Your task to perform on an android device: Search for Mexican restaurants on Maps Image 0: 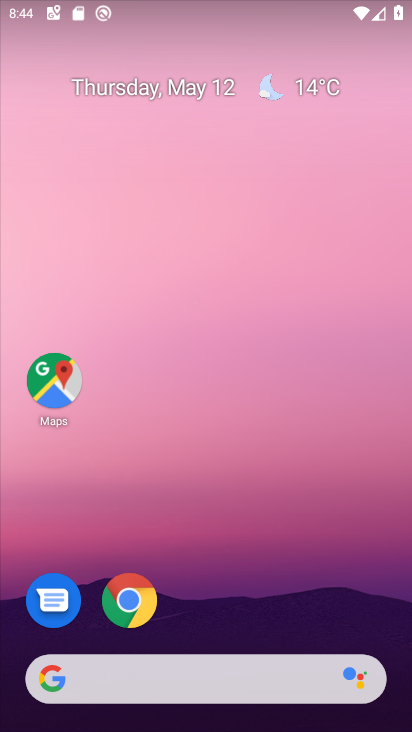
Step 0: drag from (341, 561) to (190, 171)
Your task to perform on an android device: Search for Mexican restaurants on Maps Image 1: 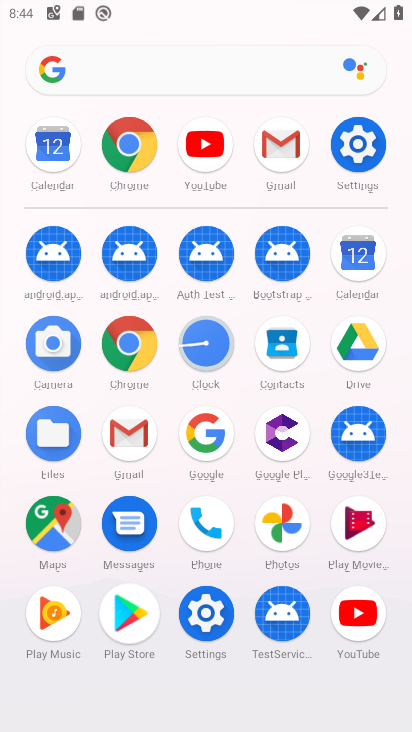
Step 1: click (48, 519)
Your task to perform on an android device: Search for Mexican restaurants on Maps Image 2: 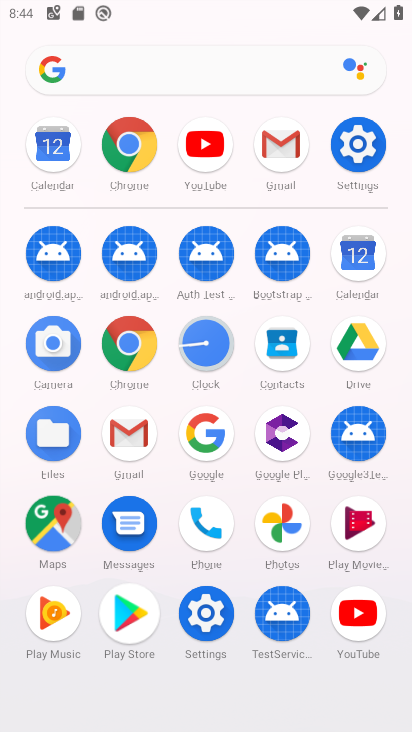
Step 2: click (51, 547)
Your task to perform on an android device: Search for Mexican restaurants on Maps Image 3: 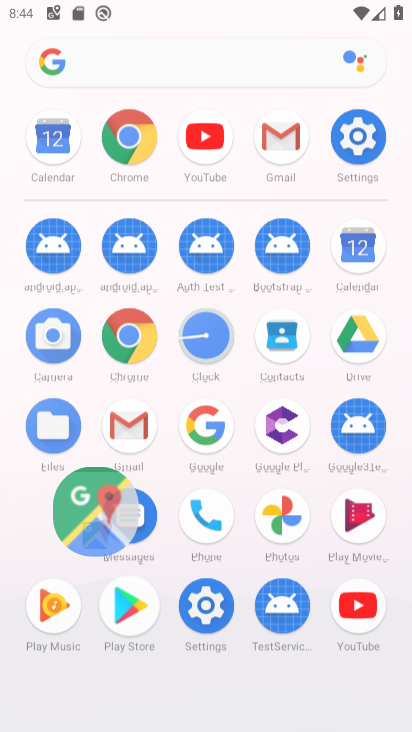
Step 3: click (48, 536)
Your task to perform on an android device: Search for Mexican restaurants on Maps Image 4: 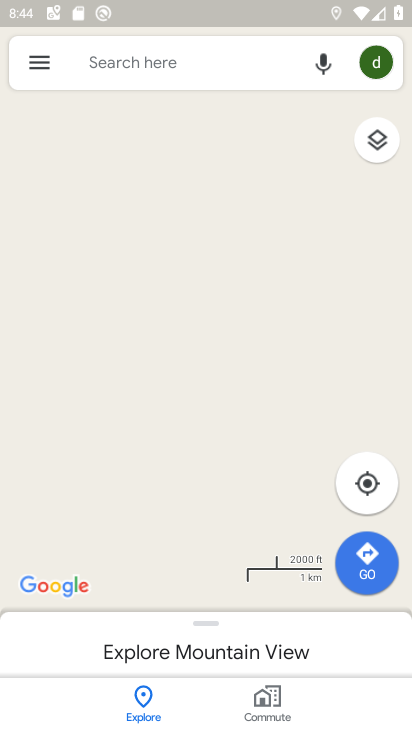
Step 4: click (96, 58)
Your task to perform on an android device: Search for Mexican restaurants on Maps Image 5: 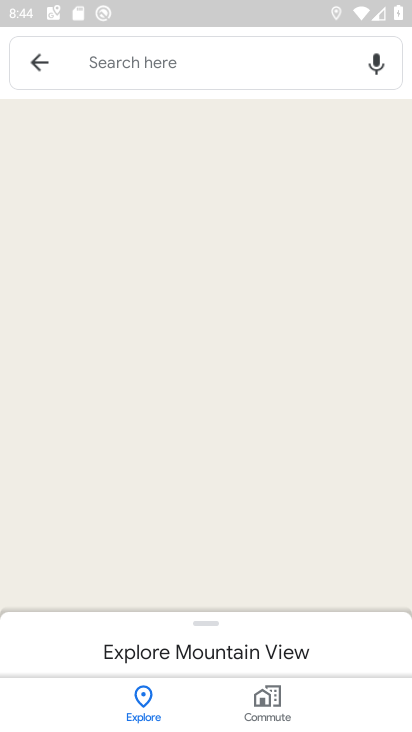
Step 5: click (96, 59)
Your task to perform on an android device: Search for Mexican restaurants on Maps Image 6: 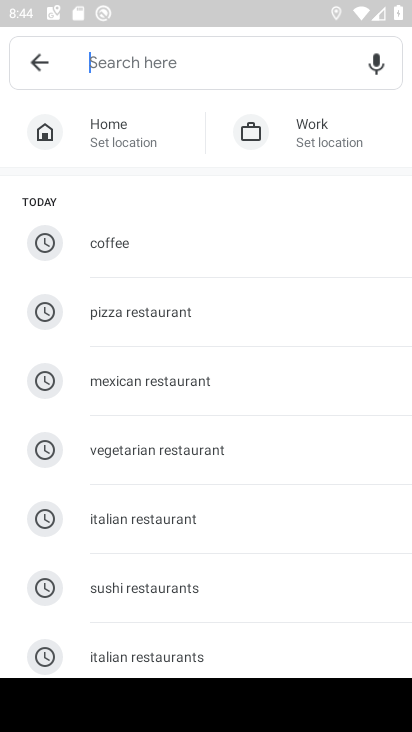
Step 6: click (124, 379)
Your task to perform on an android device: Search for Mexican restaurants on Maps Image 7: 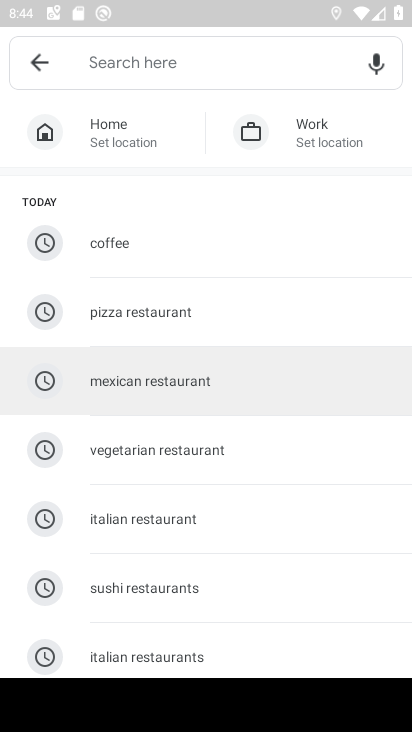
Step 7: click (124, 379)
Your task to perform on an android device: Search for Mexican restaurants on Maps Image 8: 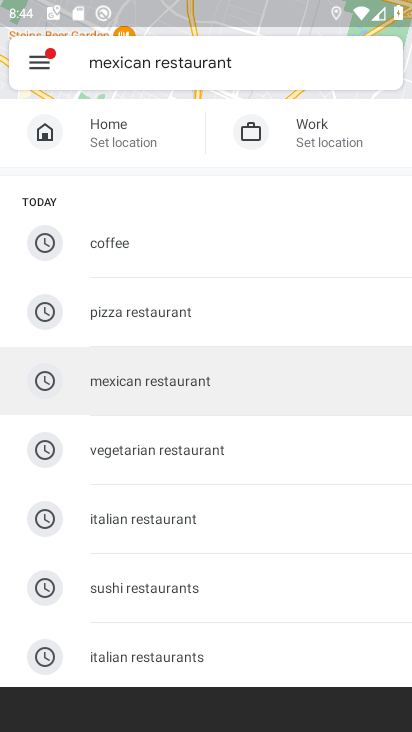
Step 8: click (124, 380)
Your task to perform on an android device: Search for Mexican restaurants on Maps Image 9: 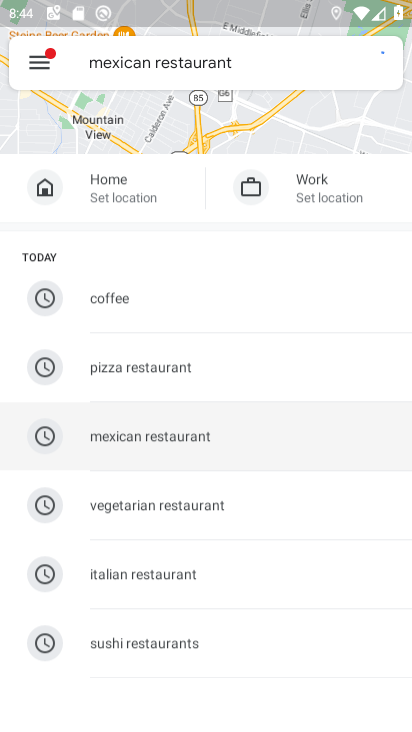
Step 9: click (127, 383)
Your task to perform on an android device: Search for Mexican restaurants on Maps Image 10: 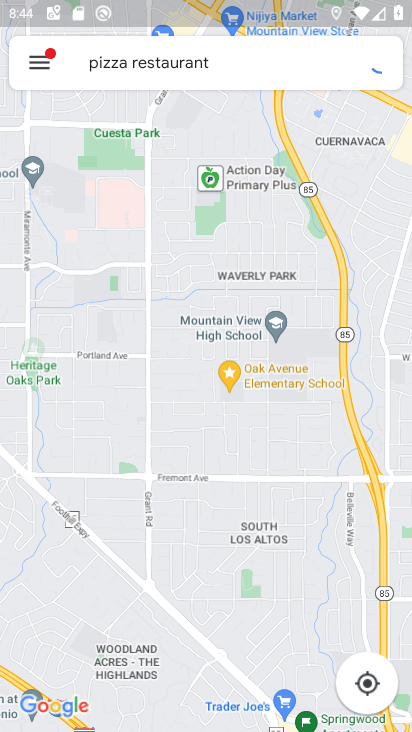
Step 10: click (223, 60)
Your task to perform on an android device: Search for Mexican restaurants on Maps Image 11: 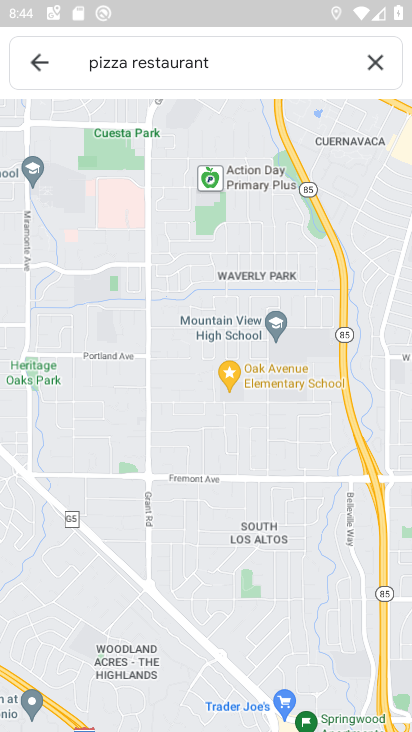
Step 11: click (121, 58)
Your task to perform on an android device: Search for Mexican restaurants on Maps Image 12: 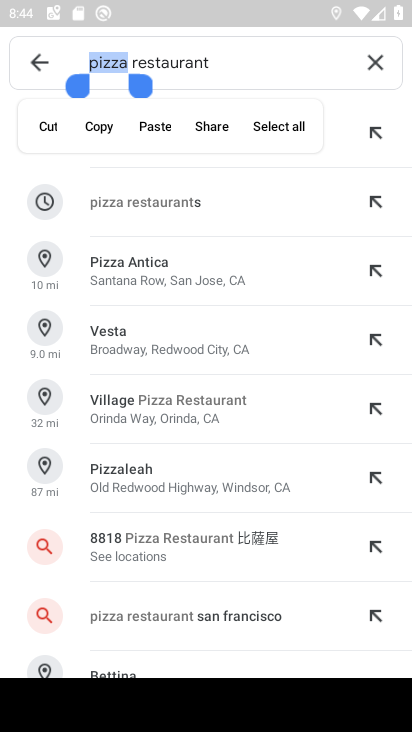
Step 12: click (374, 64)
Your task to perform on an android device: Search for Mexican restaurants on Maps Image 13: 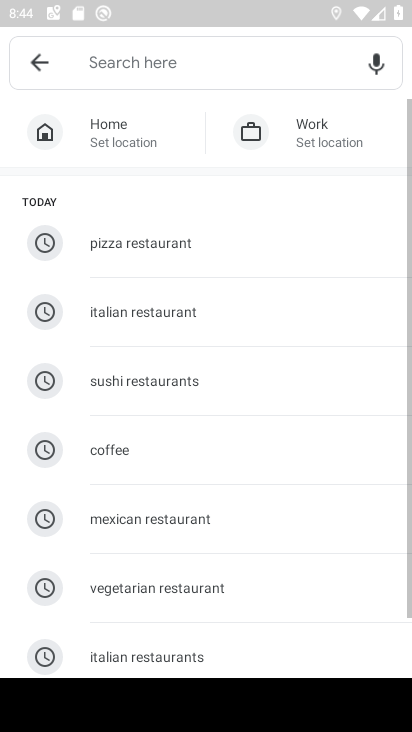
Step 13: click (93, 58)
Your task to perform on an android device: Search for Mexican restaurants on Maps Image 14: 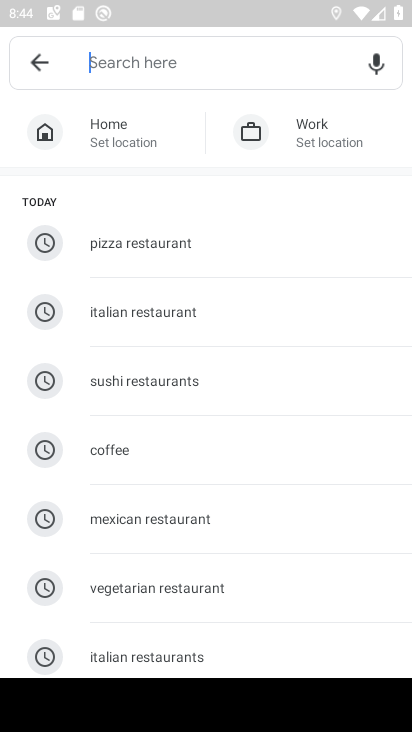
Step 14: type "mexican restaurants"
Your task to perform on an android device: Search for Mexican restaurants on Maps Image 15: 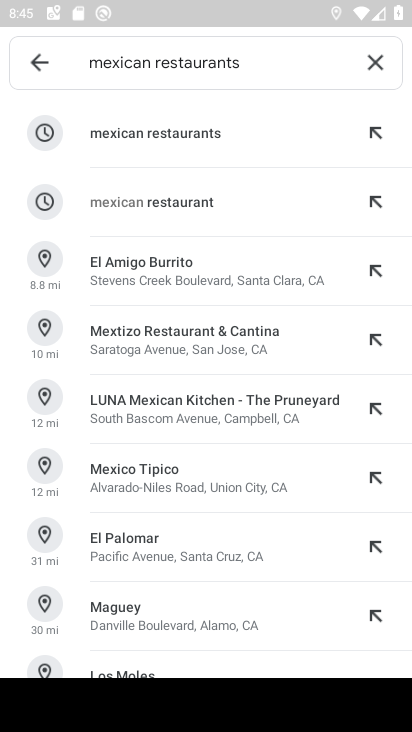
Step 15: click (155, 136)
Your task to perform on an android device: Search for Mexican restaurants on Maps Image 16: 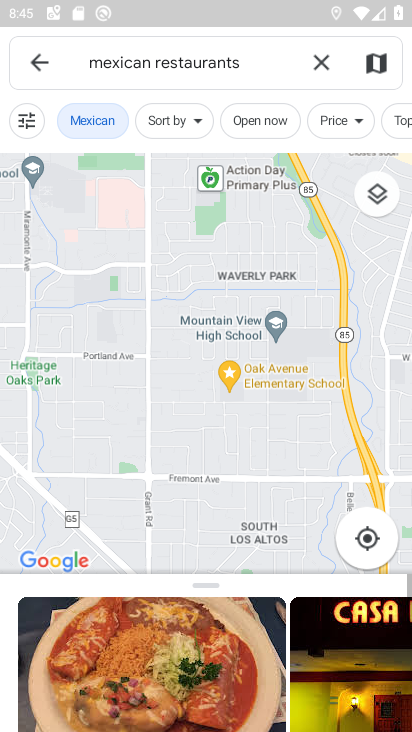
Step 16: task complete